Your task to perform on an android device: Open Reddit.com Image 0: 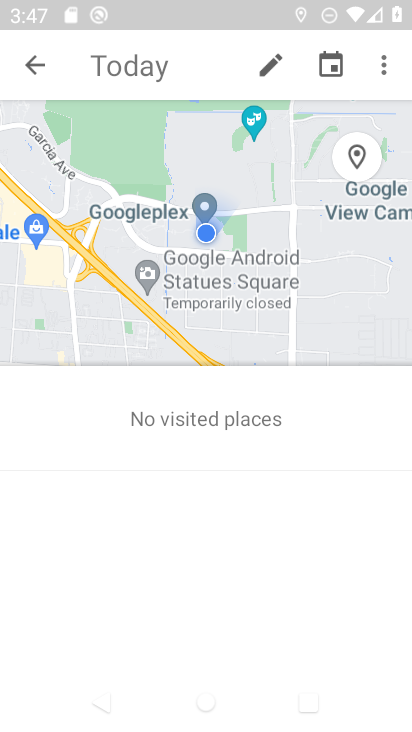
Step 0: press home button
Your task to perform on an android device: Open Reddit.com Image 1: 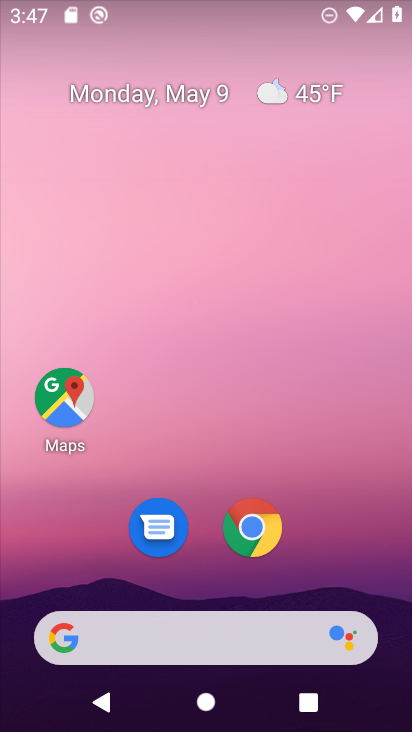
Step 1: click (264, 553)
Your task to perform on an android device: Open Reddit.com Image 2: 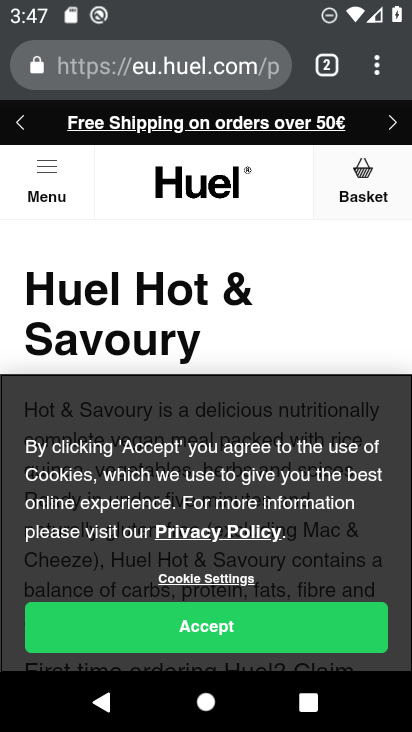
Step 2: click (198, 74)
Your task to perform on an android device: Open Reddit.com Image 3: 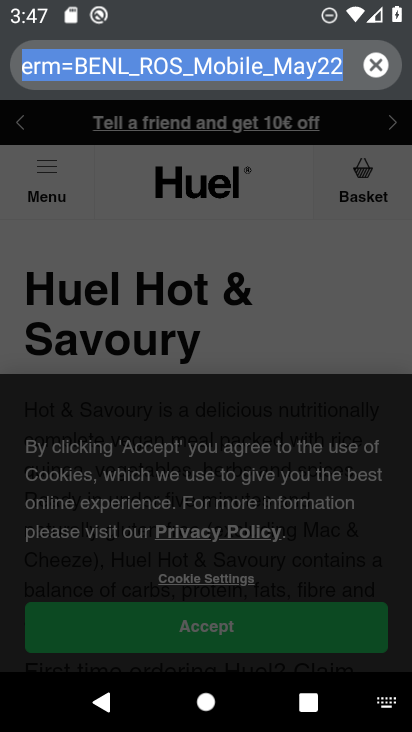
Step 3: click (374, 77)
Your task to perform on an android device: Open Reddit.com Image 4: 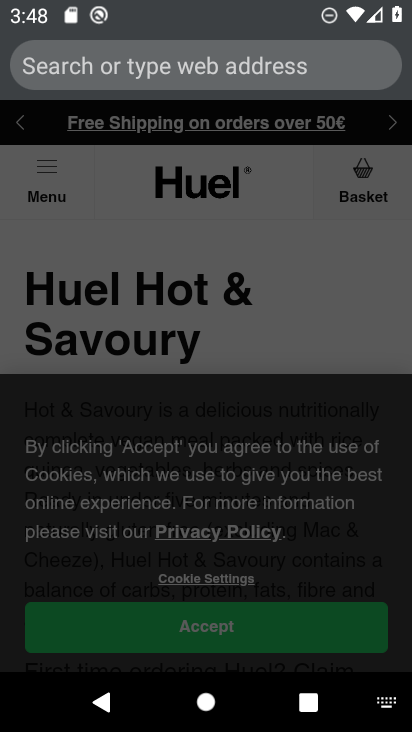
Step 4: click (210, 77)
Your task to perform on an android device: Open Reddit.com Image 5: 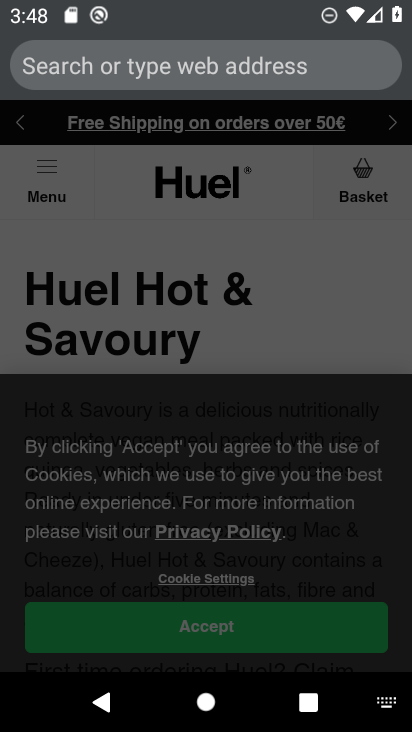
Step 5: type "Reddit.com"
Your task to perform on an android device: Open Reddit.com Image 6: 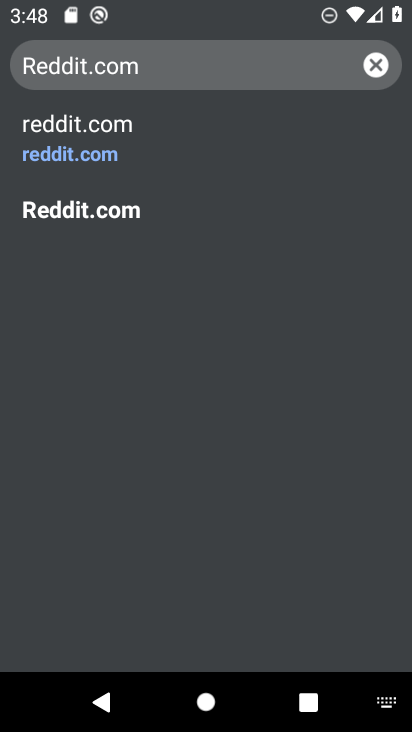
Step 6: click (100, 166)
Your task to perform on an android device: Open Reddit.com Image 7: 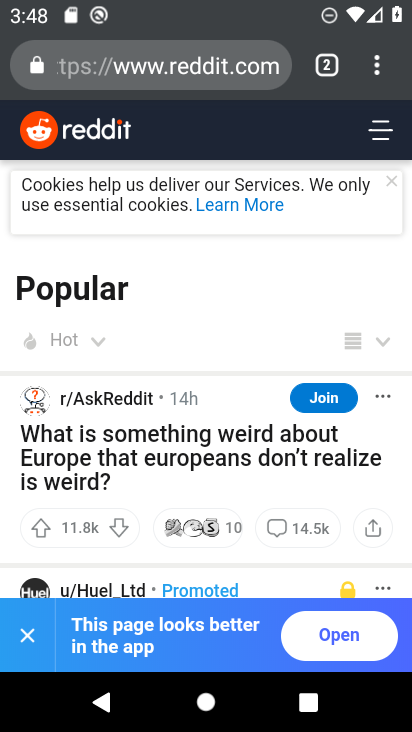
Step 7: task complete